Your task to perform on an android device: star an email in the gmail app Image 0: 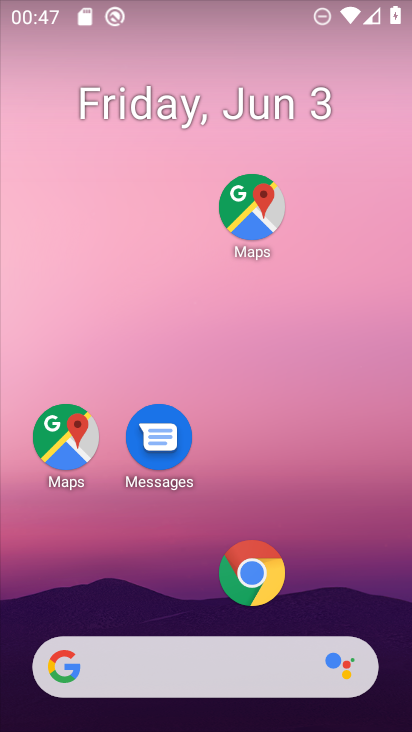
Step 0: drag from (330, 594) to (266, 3)
Your task to perform on an android device: star an email in the gmail app Image 1: 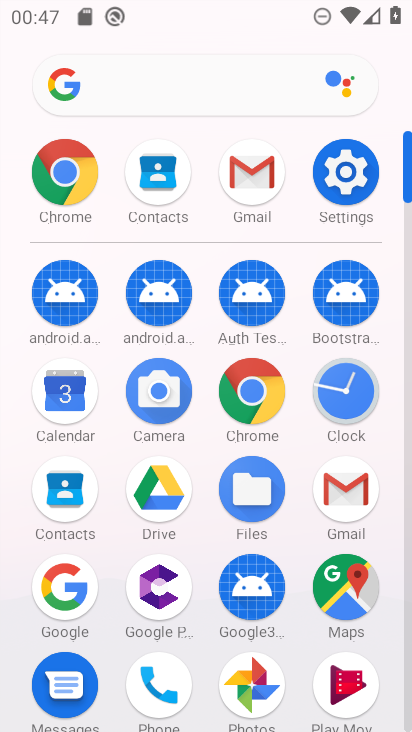
Step 1: click (262, 166)
Your task to perform on an android device: star an email in the gmail app Image 2: 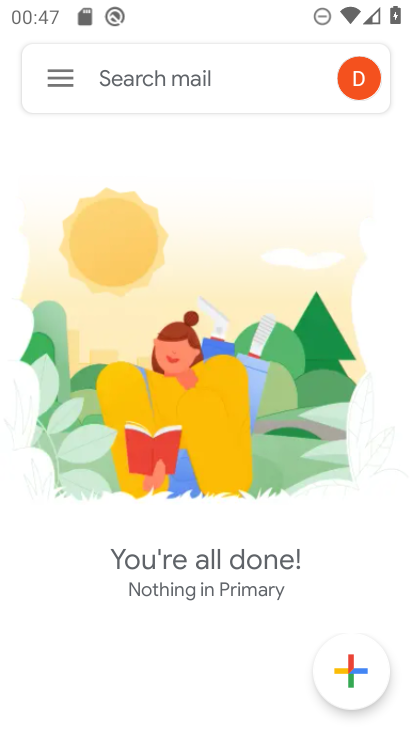
Step 2: click (54, 74)
Your task to perform on an android device: star an email in the gmail app Image 3: 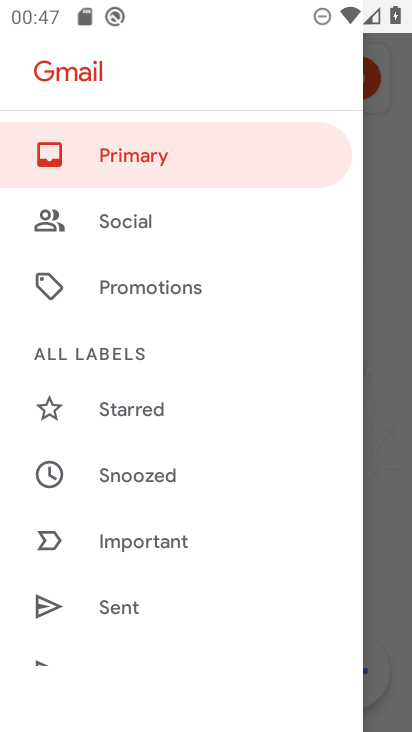
Step 3: click (195, 556)
Your task to perform on an android device: star an email in the gmail app Image 4: 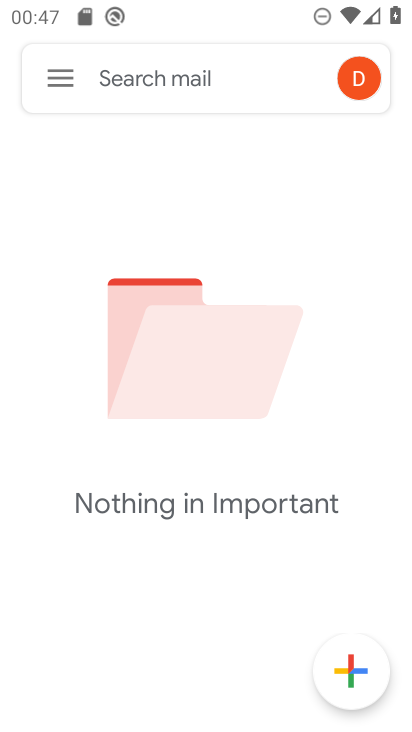
Step 4: click (68, 72)
Your task to perform on an android device: star an email in the gmail app Image 5: 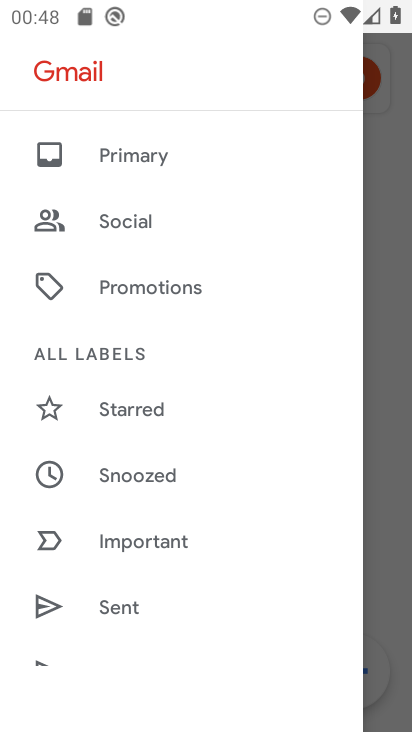
Step 5: task complete